Your task to perform on an android device: install app "Nova Launcher" Image 0: 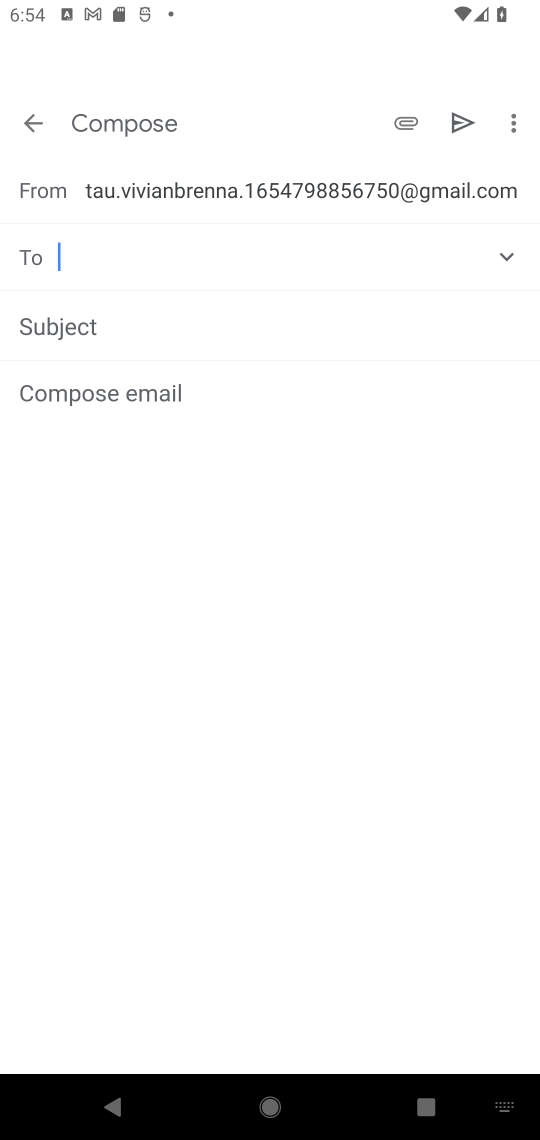
Step 0: press back button
Your task to perform on an android device: install app "Nova Launcher" Image 1: 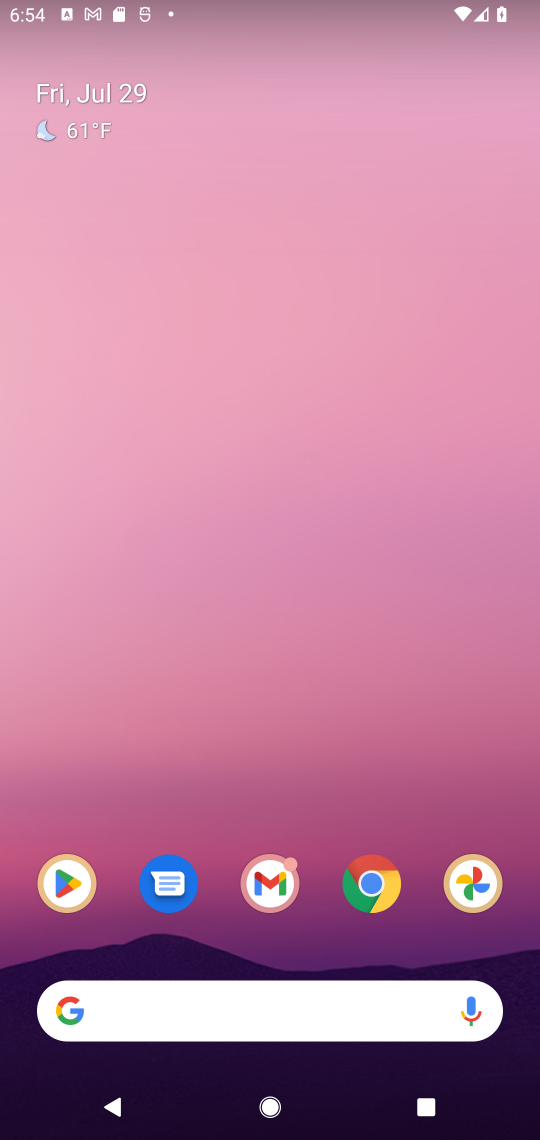
Step 1: press back button
Your task to perform on an android device: install app "Nova Launcher" Image 2: 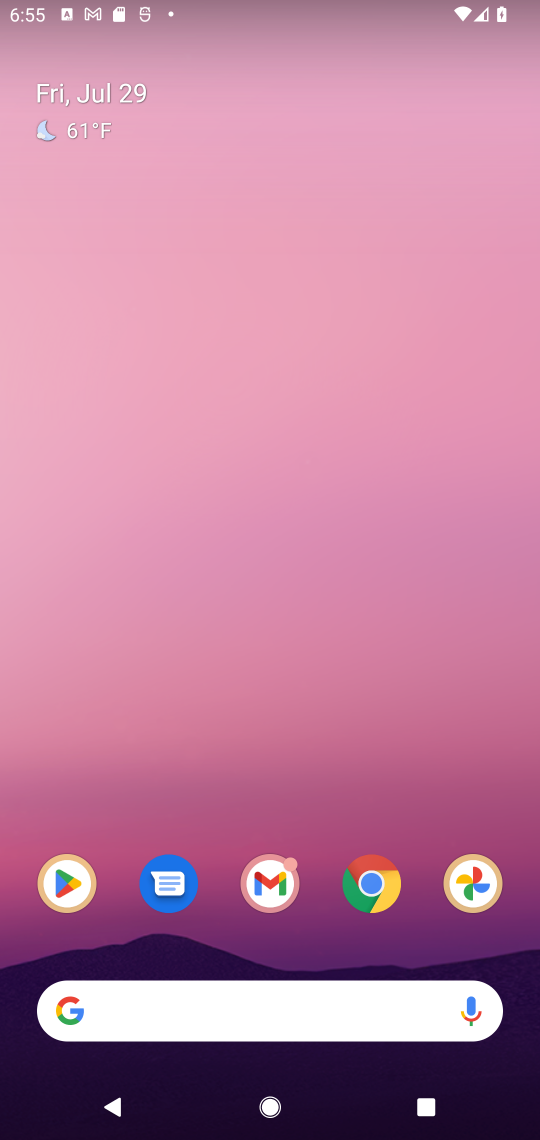
Step 2: click (76, 866)
Your task to perform on an android device: install app "Nova Launcher" Image 3: 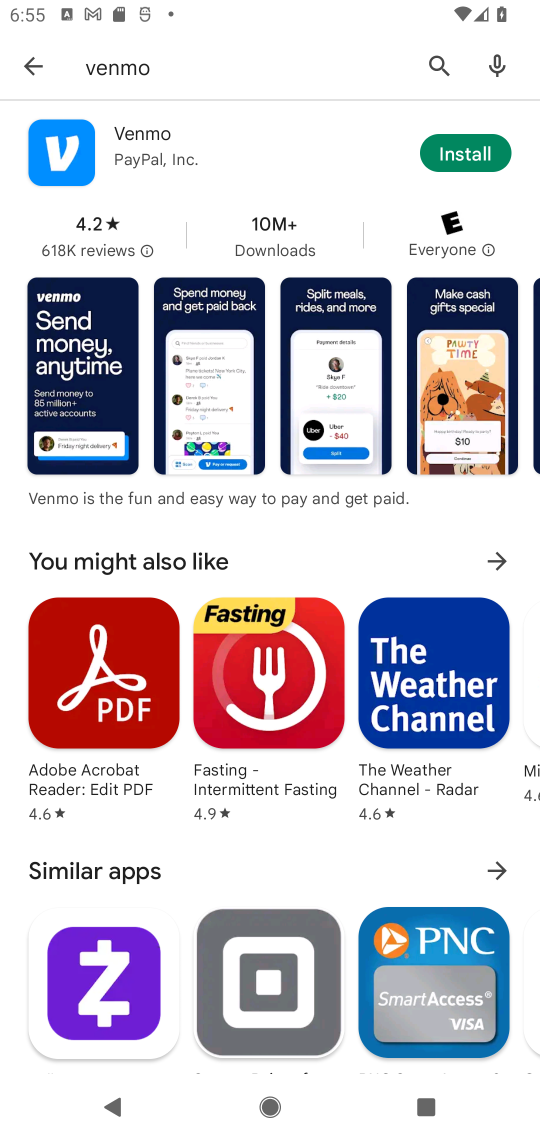
Step 3: click (422, 59)
Your task to perform on an android device: install app "Nova Launcher" Image 4: 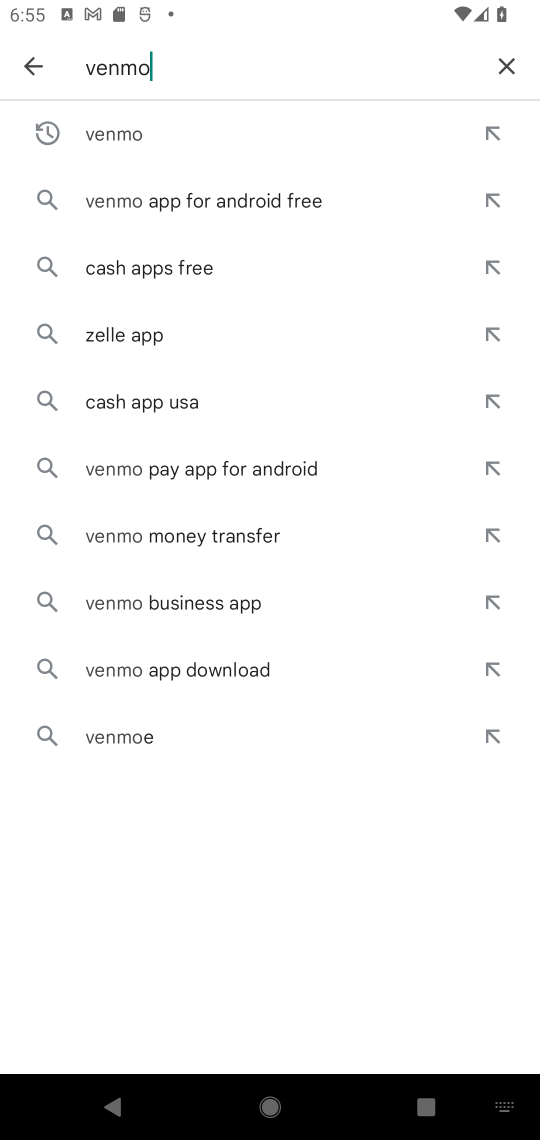
Step 4: click (499, 59)
Your task to perform on an android device: install app "Nova Launcher" Image 5: 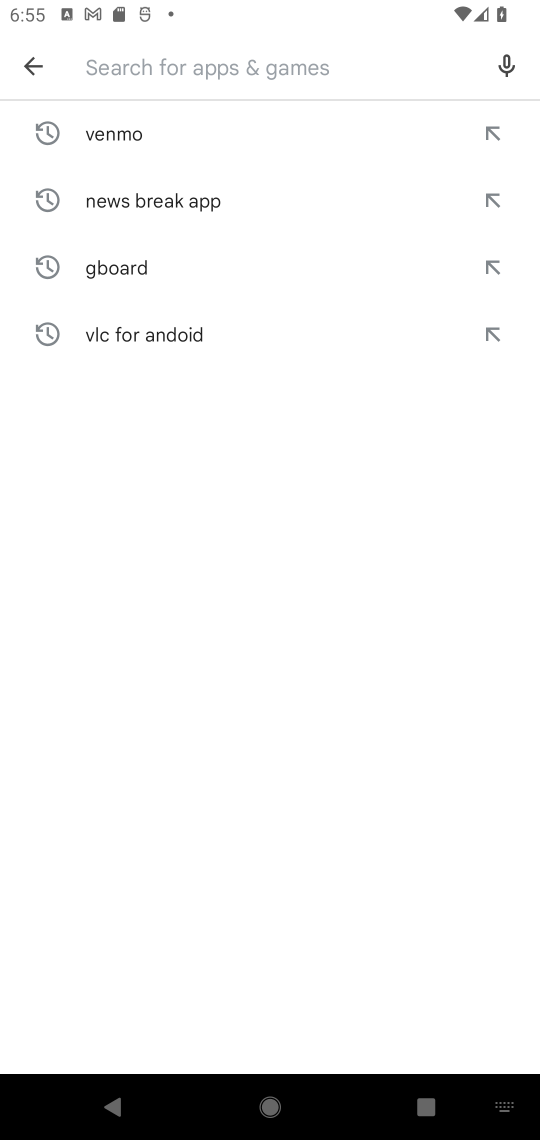
Step 5: click (146, 70)
Your task to perform on an android device: install app "Nova Launcher" Image 6: 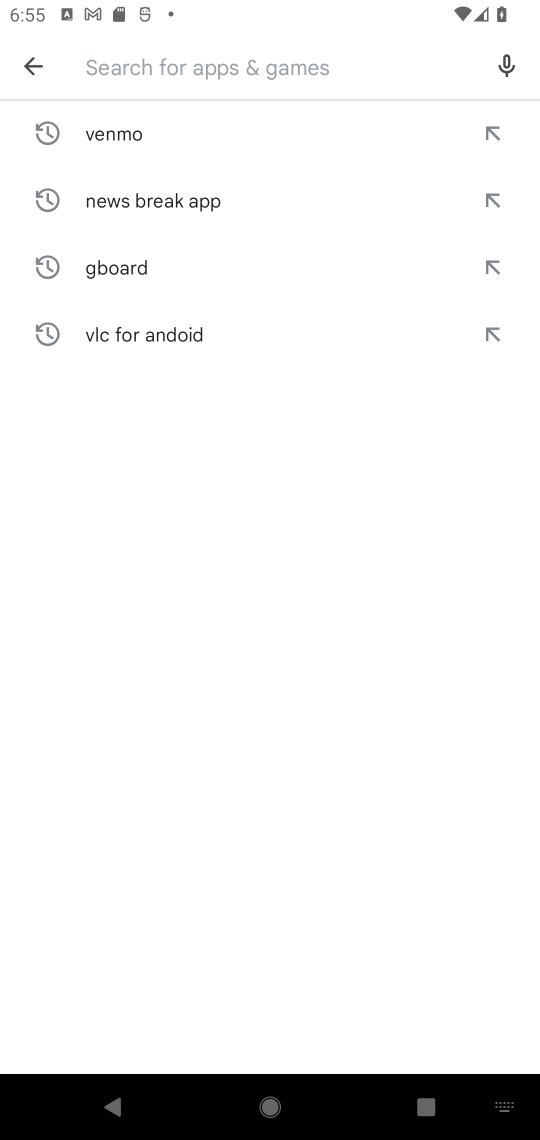
Step 6: type "nova launcher"
Your task to perform on an android device: install app "Nova Launcher" Image 7: 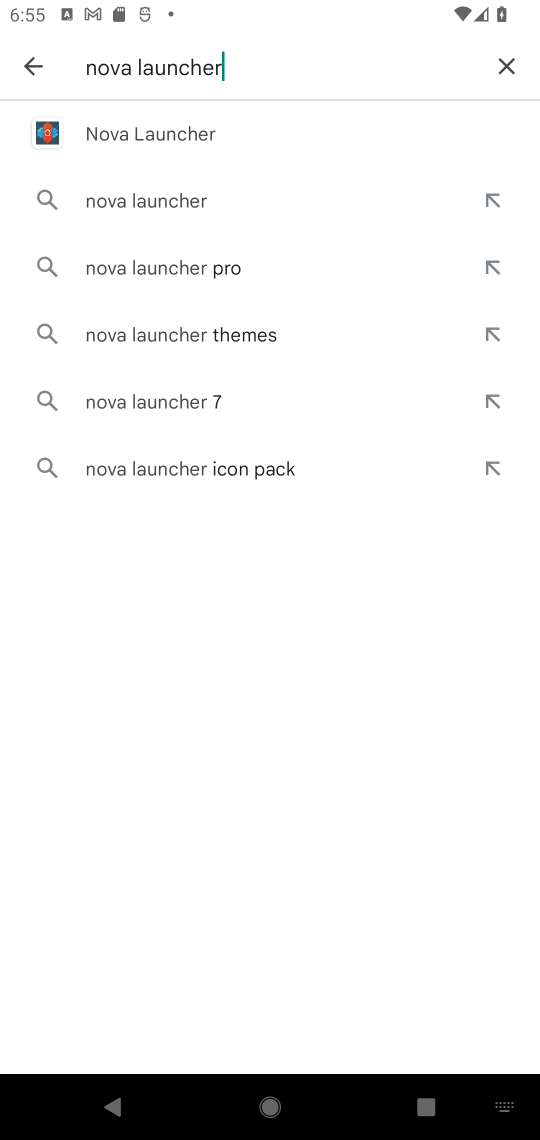
Step 7: click (159, 133)
Your task to perform on an android device: install app "Nova Launcher" Image 8: 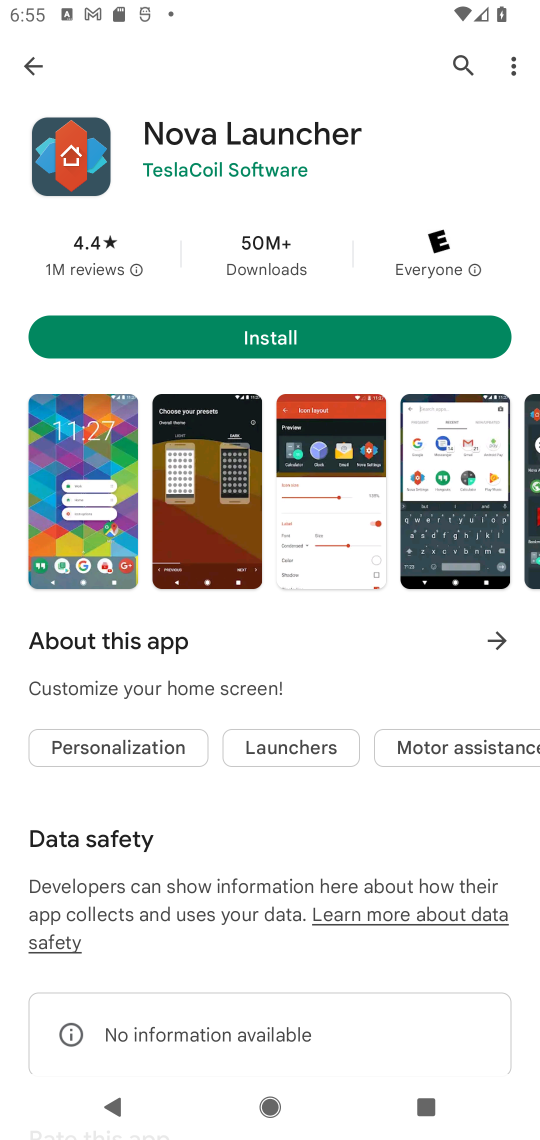
Step 8: click (209, 322)
Your task to perform on an android device: install app "Nova Launcher" Image 9: 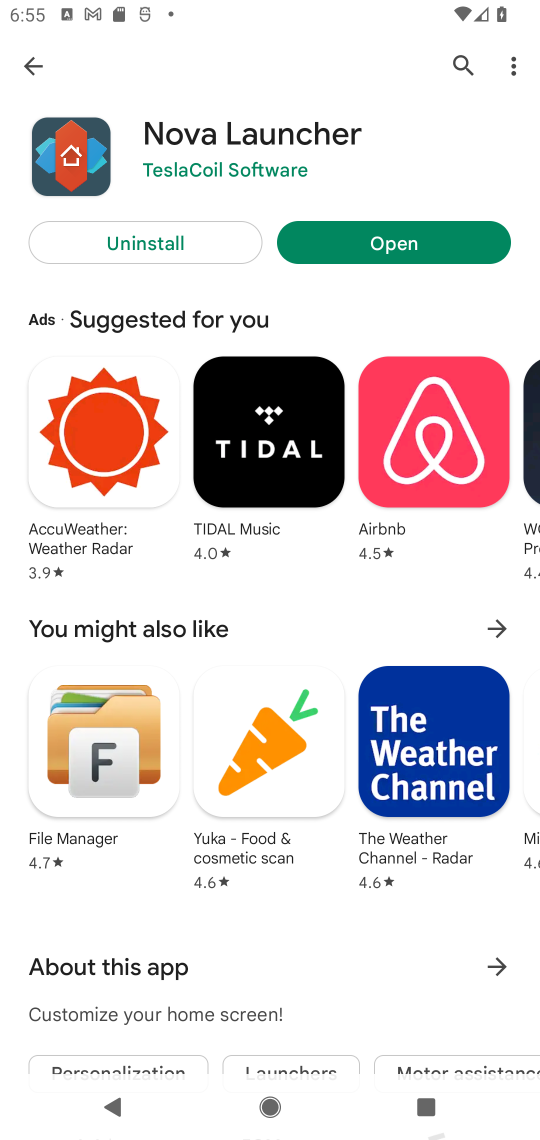
Step 9: click (377, 245)
Your task to perform on an android device: install app "Nova Launcher" Image 10: 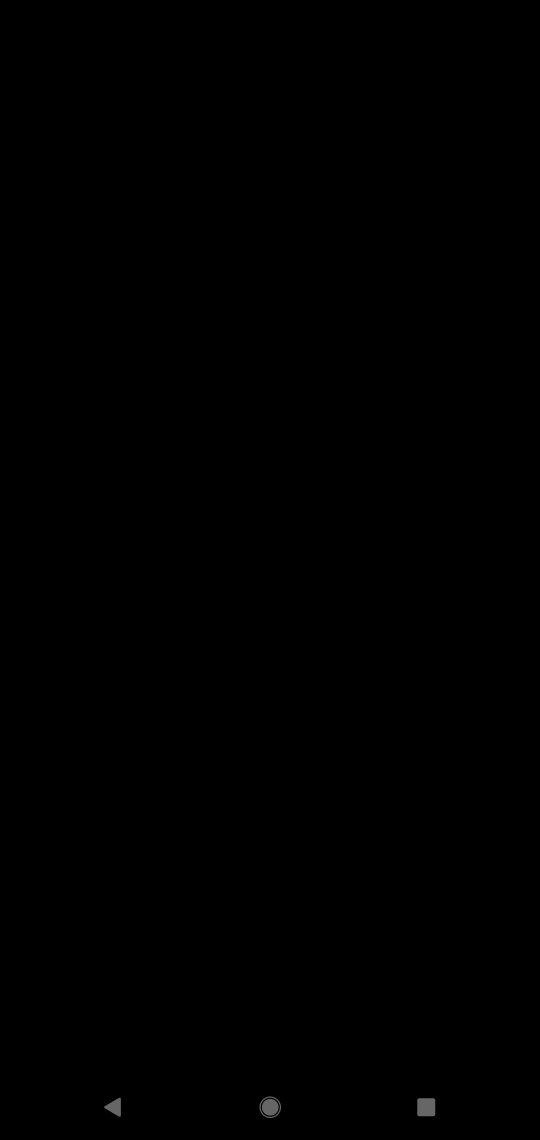
Step 10: task complete